Your task to perform on an android device: open chrome and create a bookmark for the current page Image 0: 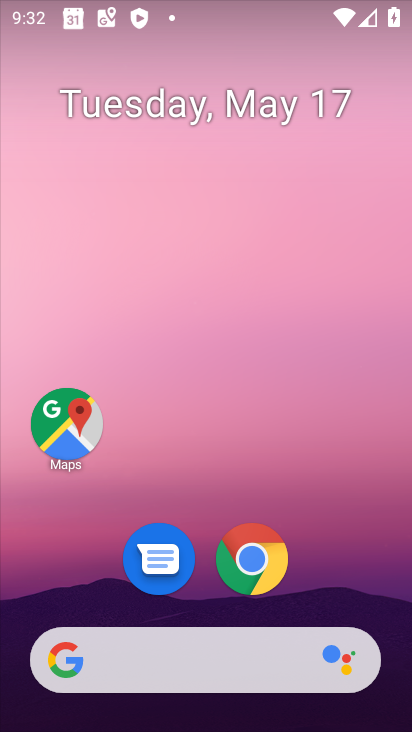
Step 0: click (270, 566)
Your task to perform on an android device: open chrome and create a bookmark for the current page Image 1: 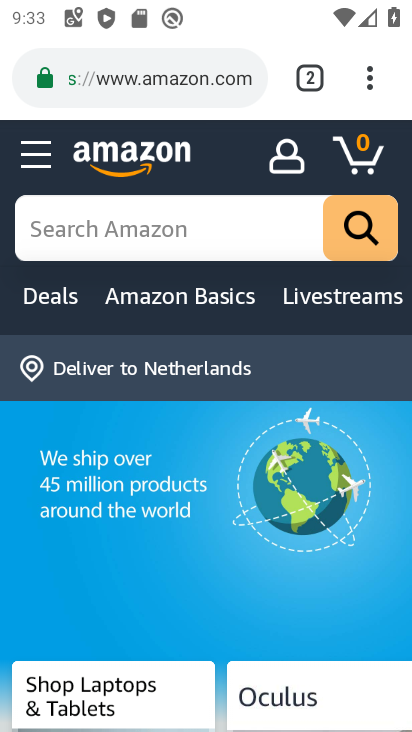
Step 1: click (374, 74)
Your task to perform on an android device: open chrome and create a bookmark for the current page Image 2: 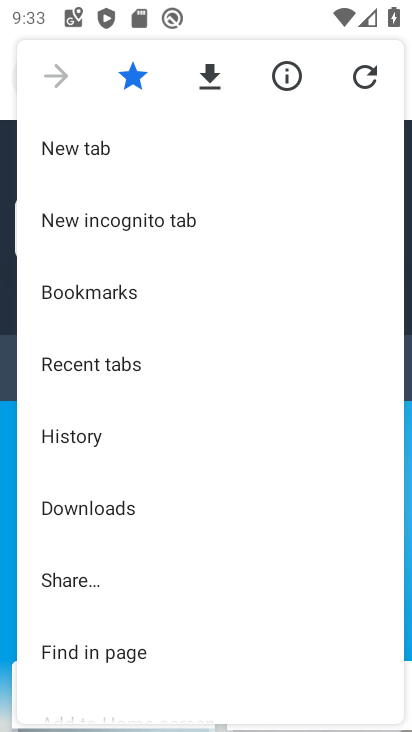
Step 2: task complete